Your task to perform on an android device: Go to Yahoo.com Image 0: 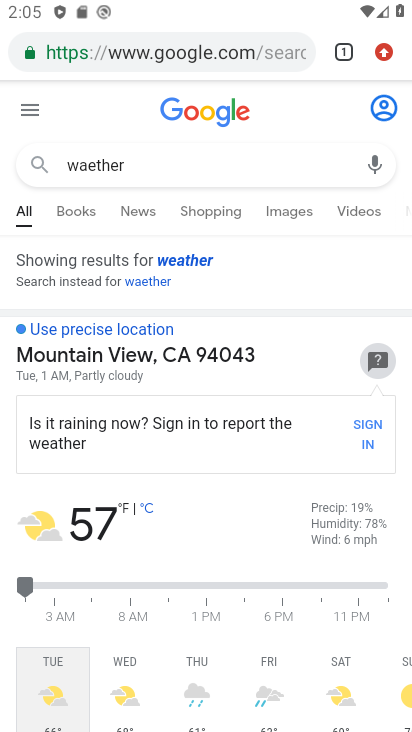
Step 0: drag from (200, 548) to (257, 202)
Your task to perform on an android device: Go to Yahoo.com Image 1: 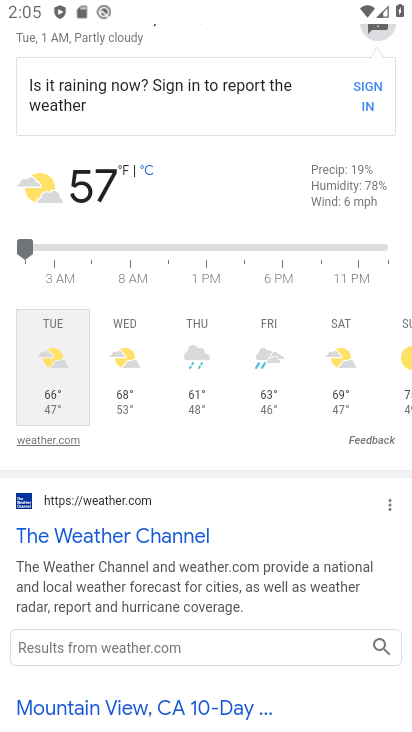
Step 1: press home button
Your task to perform on an android device: Go to Yahoo.com Image 2: 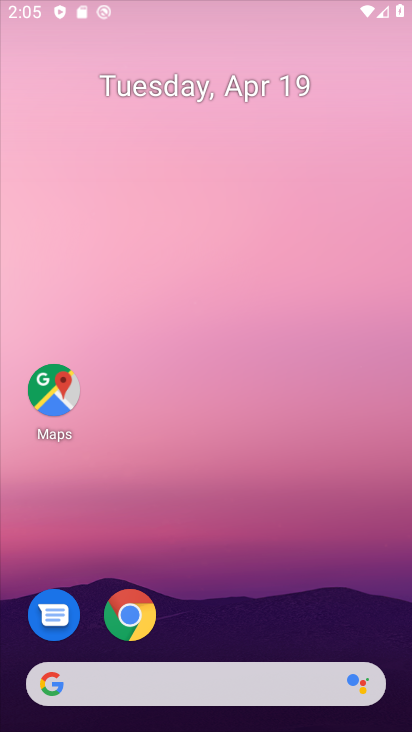
Step 2: drag from (206, 603) to (294, 76)
Your task to perform on an android device: Go to Yahoo.com Image 3: 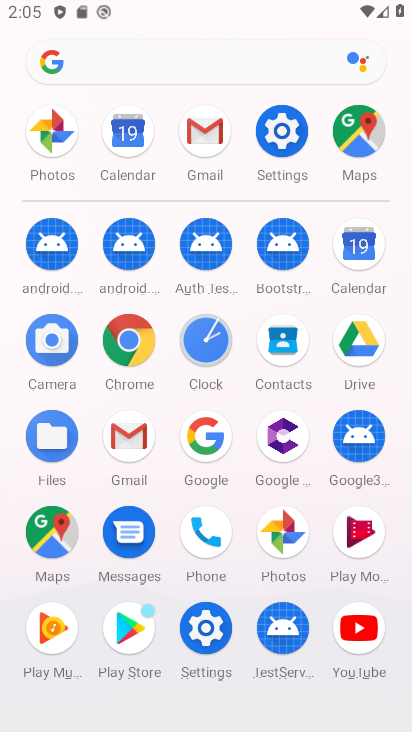
Step 3: click (128, 334)
Your task to perform on an android device: Go to Yahoo.com Image 4: 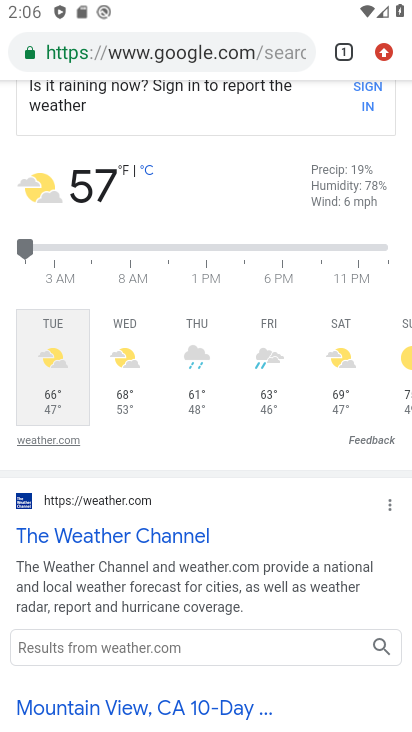
Step 4: drag from (172, 558) to (229, 290)
Your task to perform on an android device: Go to Yahoo.com Image 5: 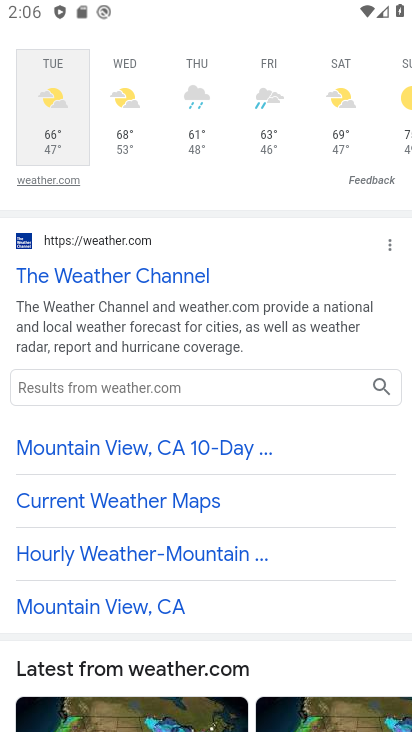
Step 5: drag from (262, 406) to (273, 274)
Your task to perform on an android device: Go to Yahoo.com Image 6: 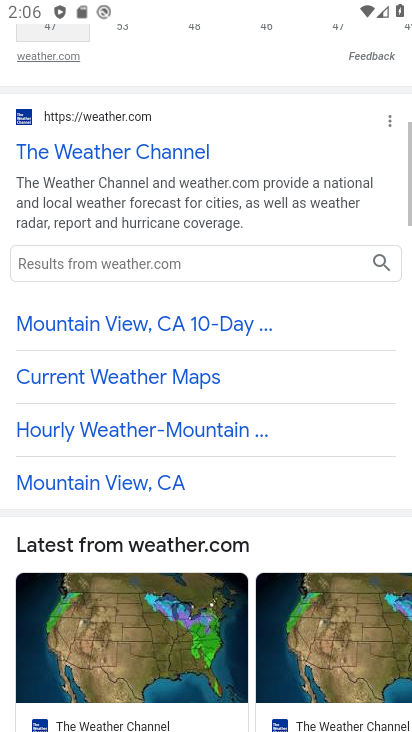
Step 6: drag from (216, 184) to (46, 693)
Your task to perform on an android device: Go to Yahoo.com Image 7: 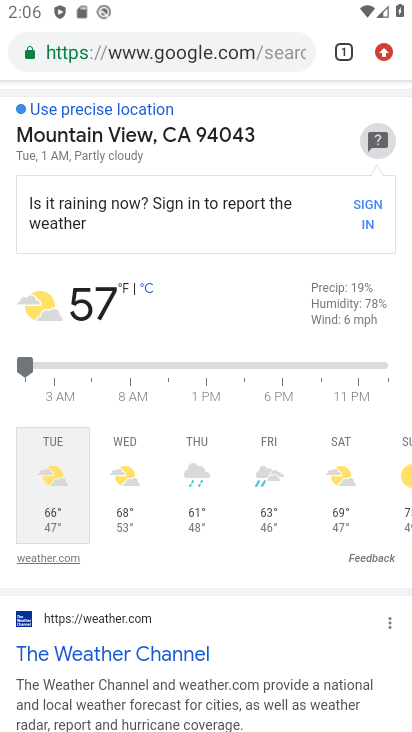
Step 7: drag from (192, 355) to (220, 709)
Your task to perform on an android device: Go to Yahoo.com Image 8: 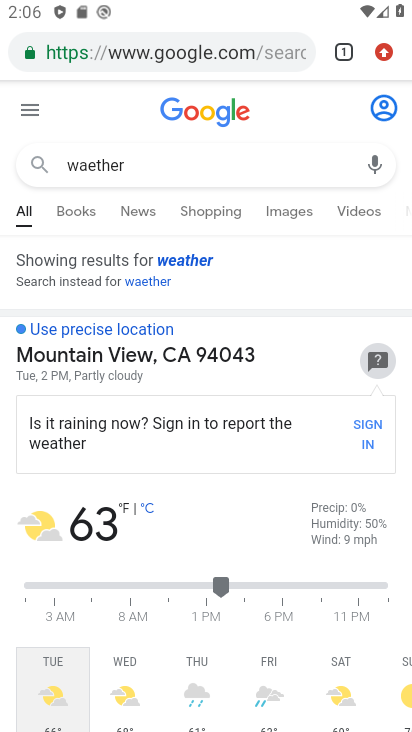
Step 8: click (121, 173)
Your task to perform on an android device: Go to Yahoo.com Image 9: 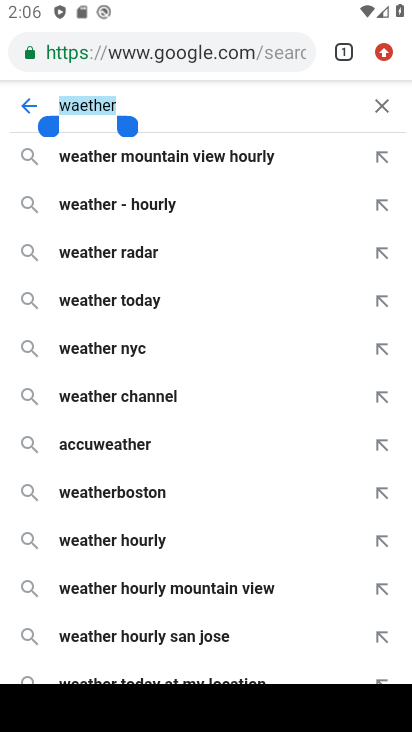
Step 9: click (379, 109)
Your task to perform on an android device: Go to Yahoo.com Image 10: 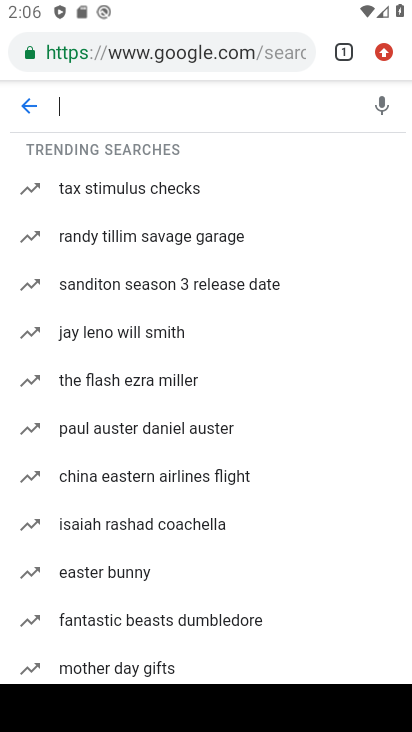
Step 10: click (228, 98)
Your task to perform on an android device: Go to Yahoo.com Image 11: 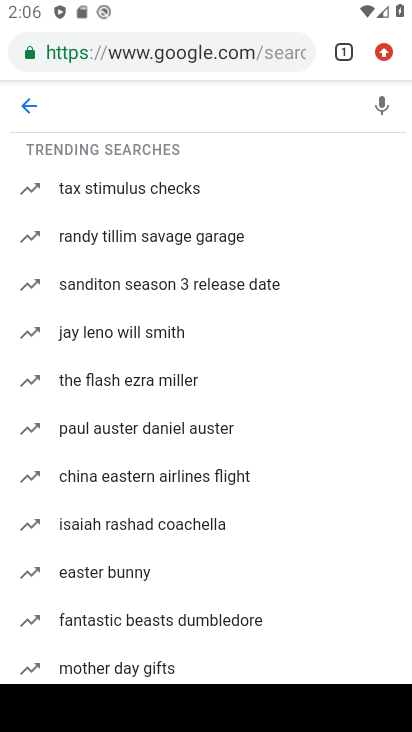
Step 11: type "yahoo.com"
Your task to perform on an android device: Go to Yahoo.com Image 12: 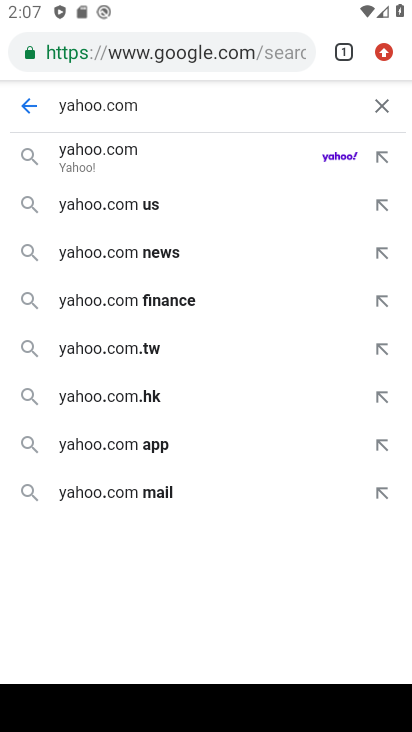
Step 12: click (203, 165)
Your task to perform on an android device: Go to Yahoo.com Image 13: 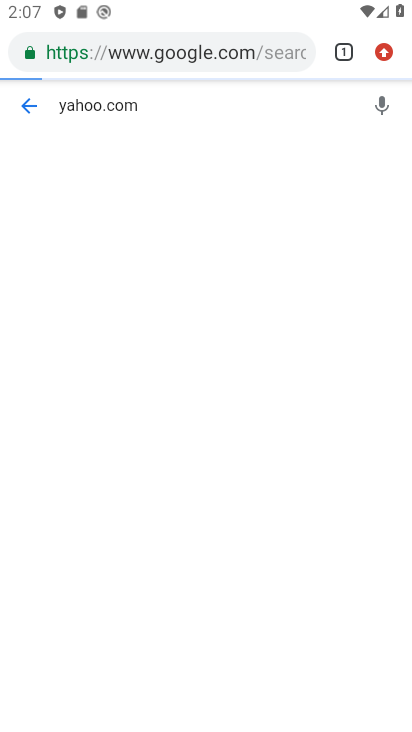
Step 13: task complete